Your task to perform on an android device: turn on airplane mode Image 0: 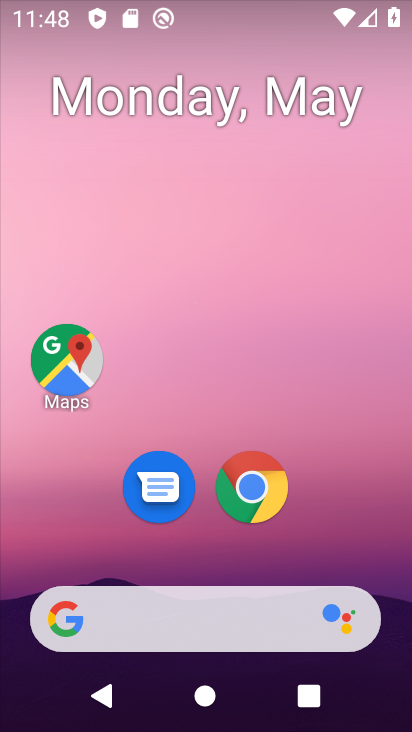
Step 0: drag from (102, 571) to (216, 94)
Your task to perform on an android device: turn on airplane mode Image 1: 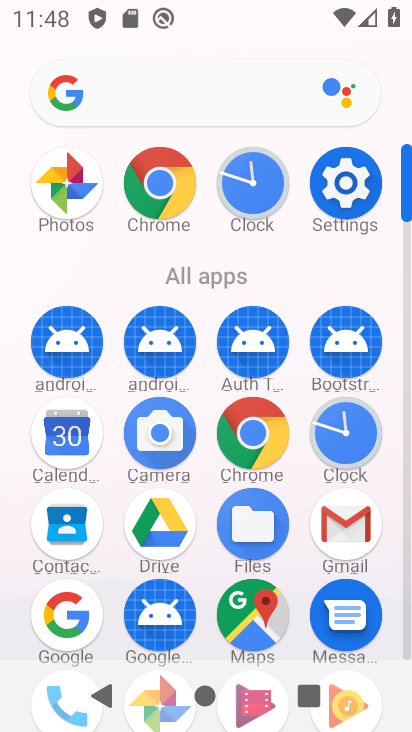
Step 1: drag from (191, 660) to (283, 378)
Your task to perform on an android device: turn on airplane mode Image 2: 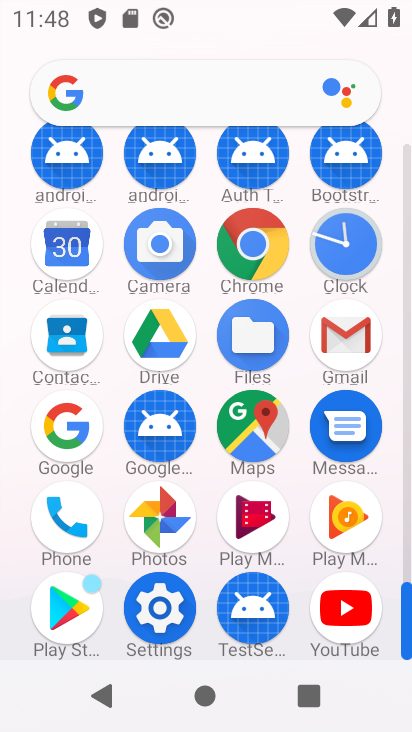
Step 2: click (180, 625)
Your task to perform on an android device: turn on airplane mode Image 3: 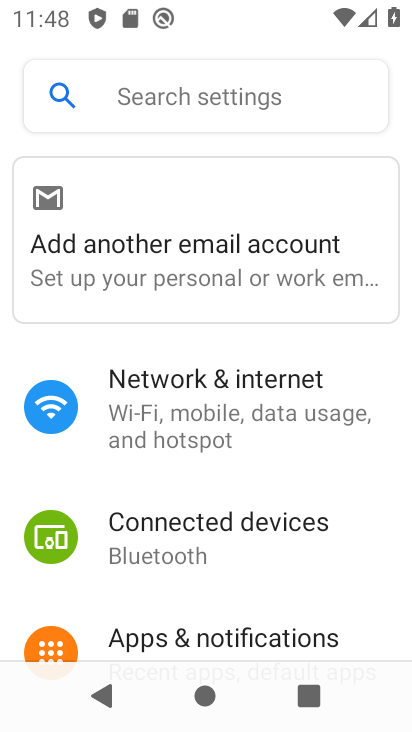
Step 3: click (264, 429)
Your task to perform on an android device: turn on airplane mode Image 4: 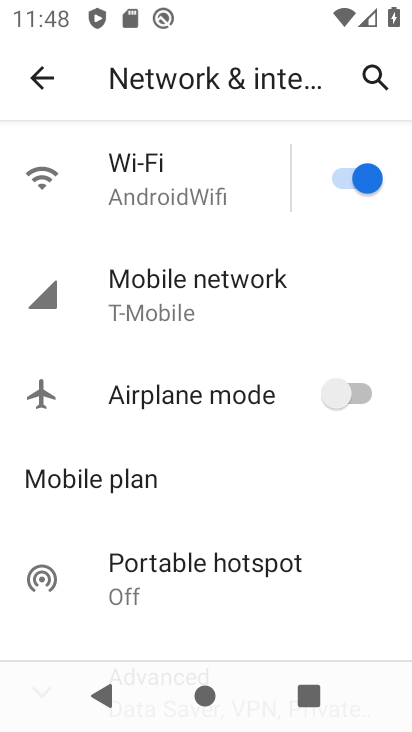
Step 4: click (367, 386)
Your task to perform on an android device: turn on airplane mode Image 5: 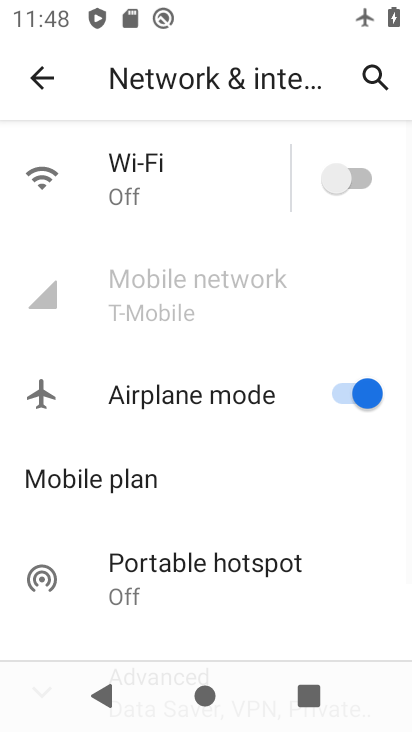
Step 5: task complete